Your task to perform on an android device: Open calendar and show me the second week of next month Image 0: 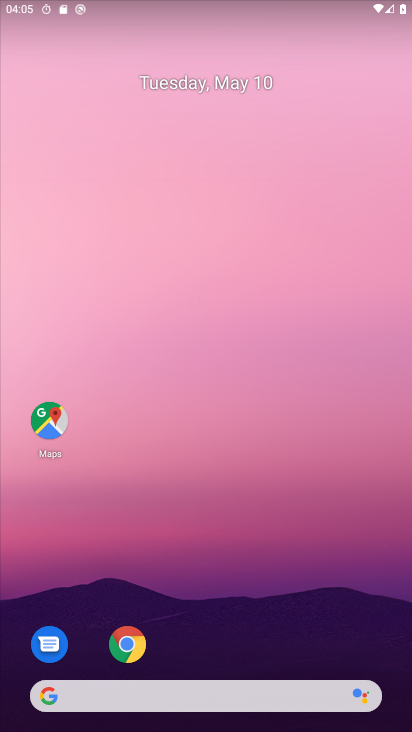
Step 0: drag from (217, 655) to (262, 196)
Your task to perform on an android device: Open calendar and show me the second week of next month Image 1: 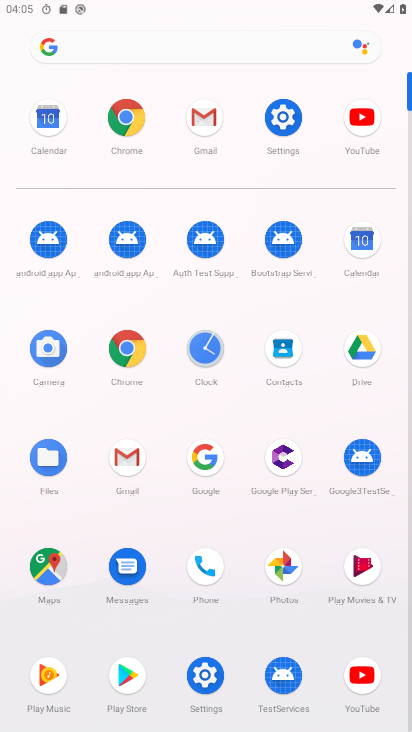
Step 1: click (361, 237)
Your task to perform on an android device: Open calendar and show me the second week of next month Image 2: 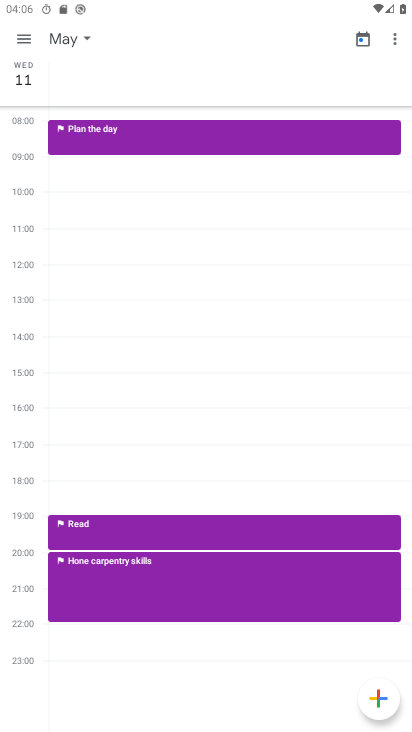
Step 2: click (21, 38)
Your task to perform on an android device: Open calendar and show me the second week of next month Image 3: 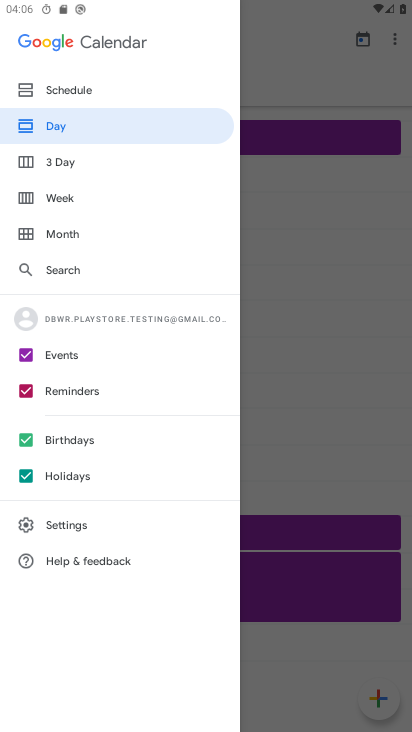
Step 3: click (39, 190)
Your task to perform on an android device: Open calendar and show me the second week of next month Image 4: 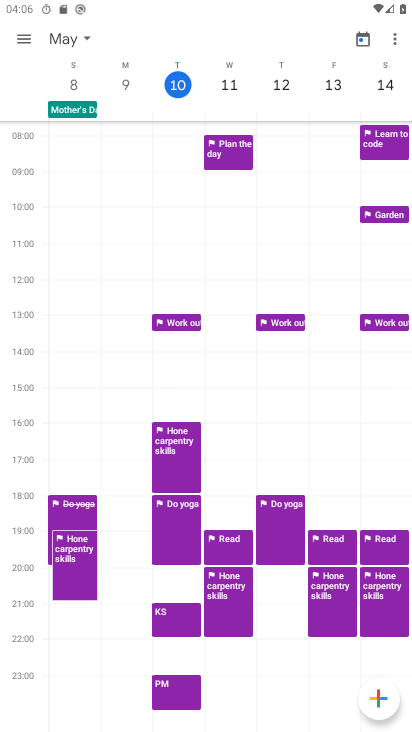
Step 4: drag from (387, 78) to (21, 85)
Your task to perform on an android device: Open calendar and show me the second week of next month Image 5: 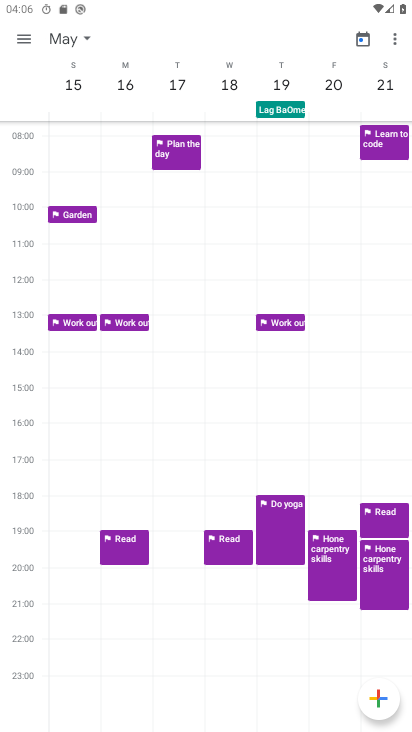
Step 5: drag from (389, 85) to (57, 96)
Your task to perform on an android device: Open calendar and show me the second week of next month Image 6: 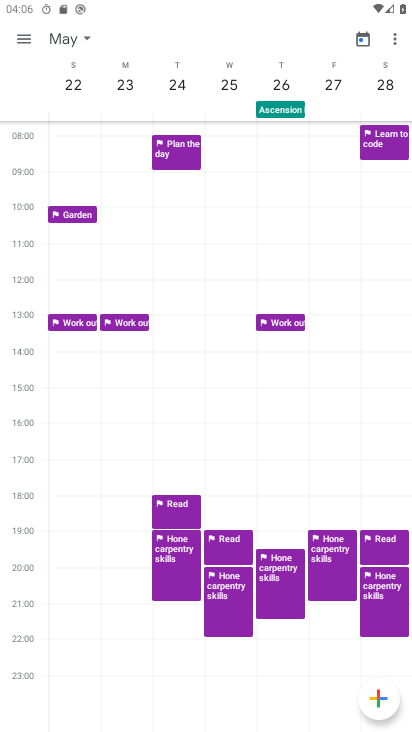
Step 6: drag from (384, 78) to (26, 245)
Your task to perform on an android device: Open calendar and show me the second week of next month Image 7: 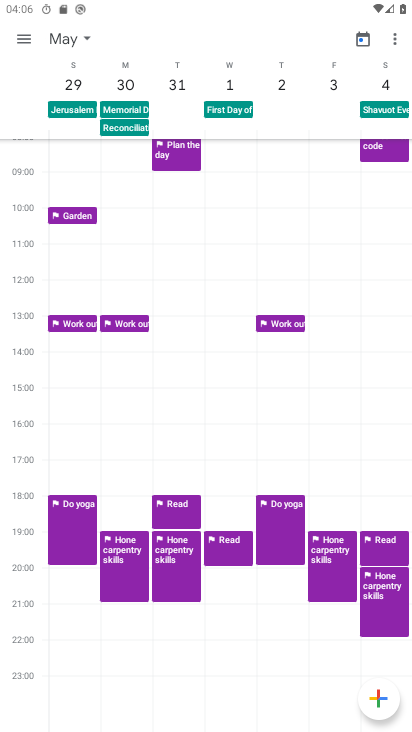
Step 7: drag from (381, 78) to (2, 136)
Your task to perform on an android device: Open calendar and show me the second week of next month Image 8: 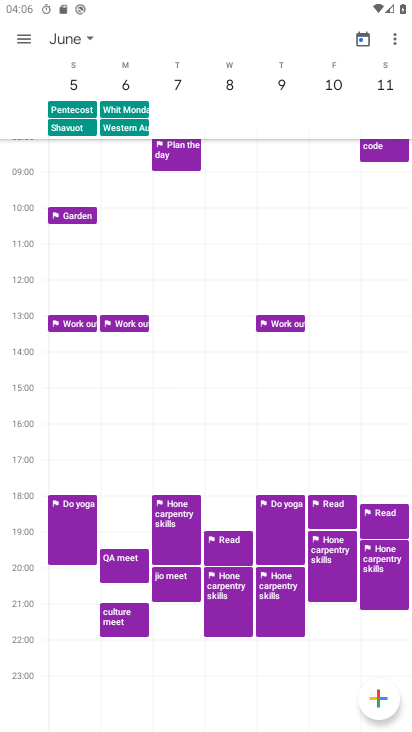
Step 8: click (73, 77)
Your task to perform on an android device: Open calendar and show me the second week of next month Image 9: 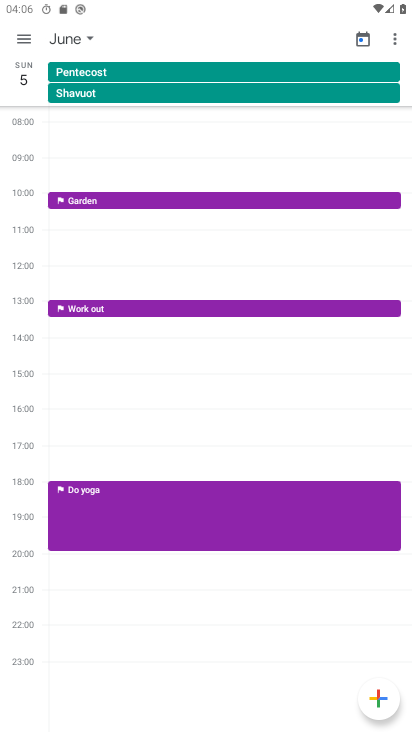
Step 9: click (37, 80)
Your task to perform on an android device: Open calendar and show me the second week of next month Image 10: 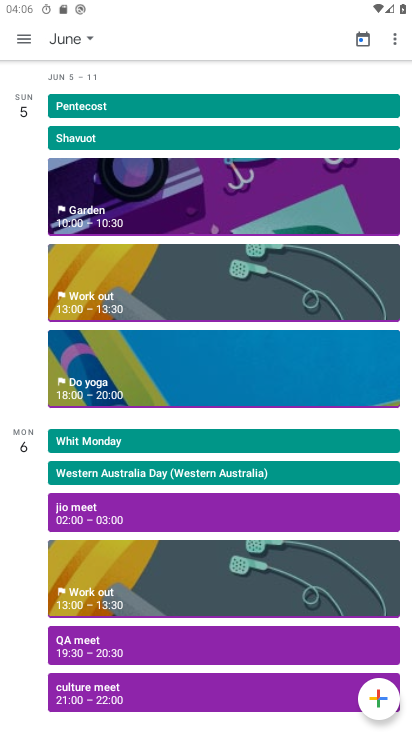
Step 10: drag from (40, 338) to (40, 229)
Your task to perform on an android device: Open calendar and show me the second week of next month Image 11: 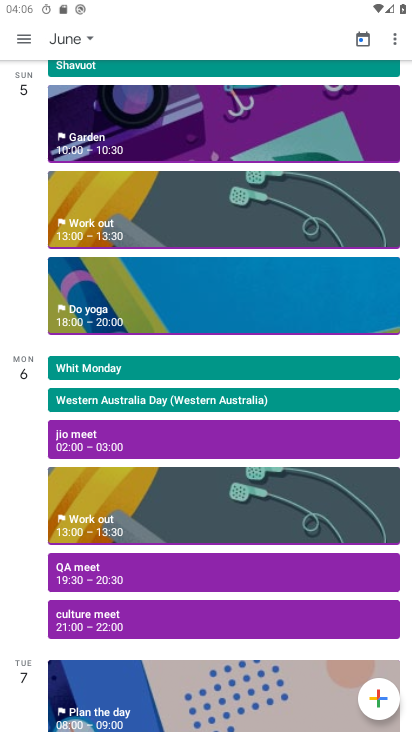
Step 11: click (40, 181)
Your task to perform on an android device: Open calendar and show me the second week of next month Image 12: 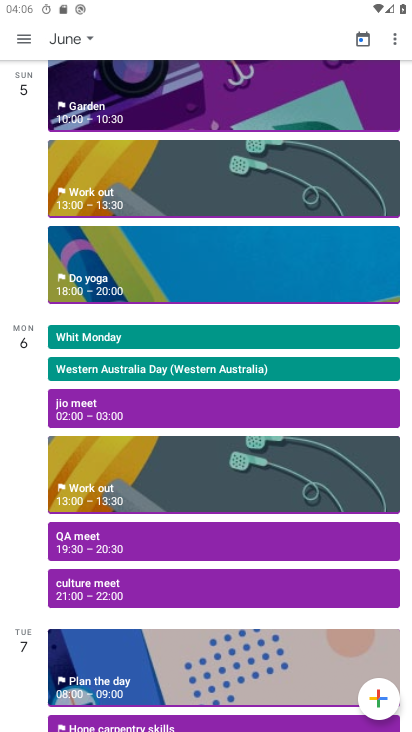
Step 12: task complete